Your task to perform on an android device: Play the last video I watched on Youtube Image 0: 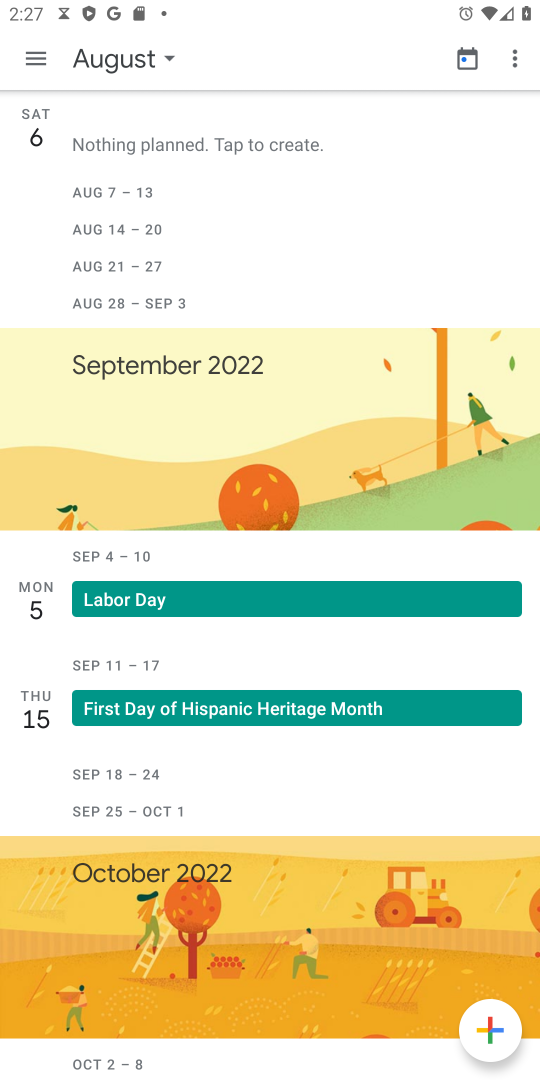
Step 0: press home button
Your task to perform on an android device: Play the last video I watched on Youtube Image 1: 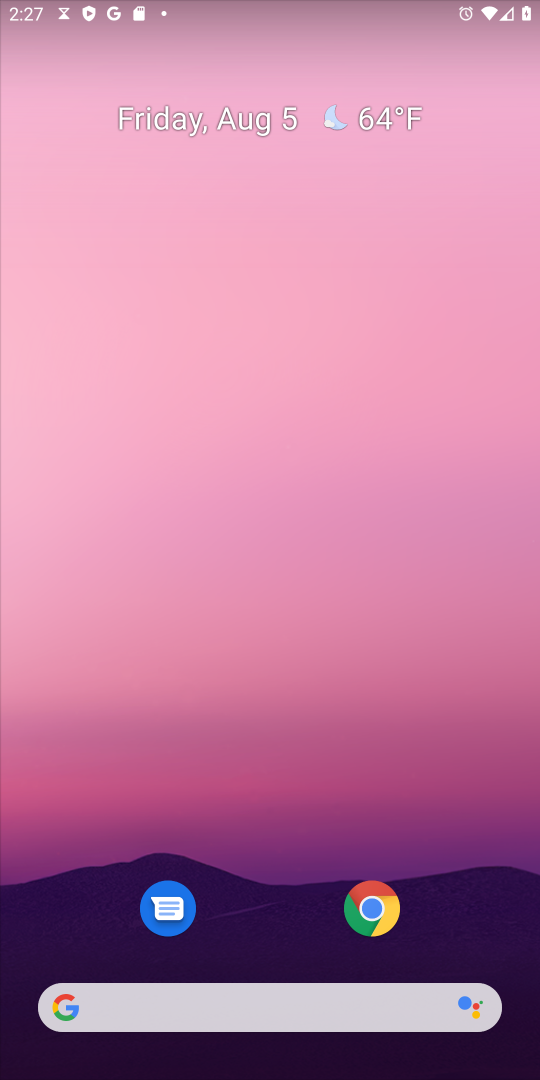
Step 1: drag from (300, 918) to (161, 92)
Your task to perform on an android device: Play the last video I watched on Youtube Image 2: 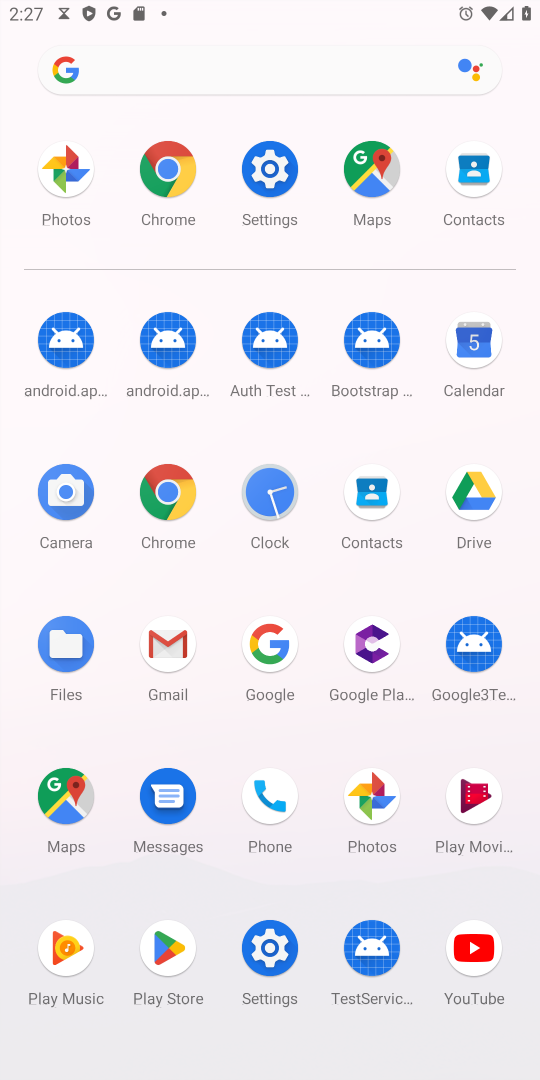
Step 2: click (480, 953)
Your task to perform on an android device: Play the last video I watched on Youtube Image 3: 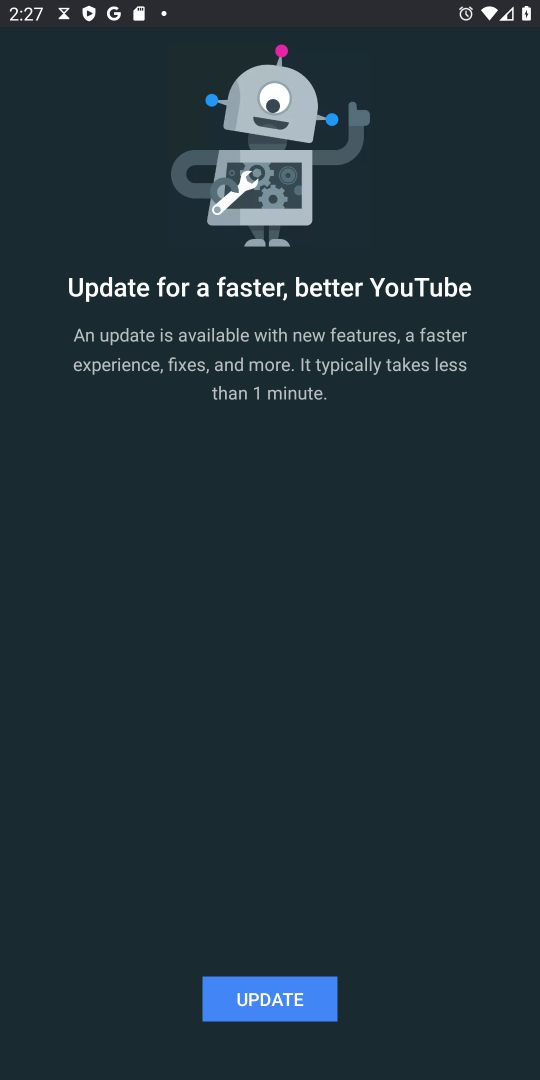
Step 3: click (294, 991)
Your task to perform on an android device: Play the last video I watched on Youtube Image 4: 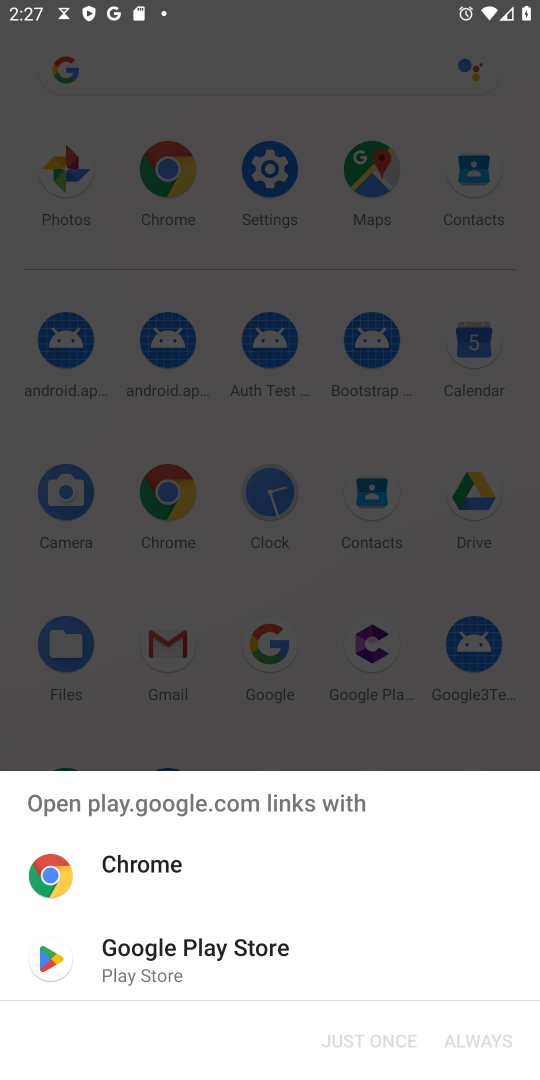
Step 4: click (214, 967)
Your task to perform on an android device: Play the last video I watched on Youtube Image 5: 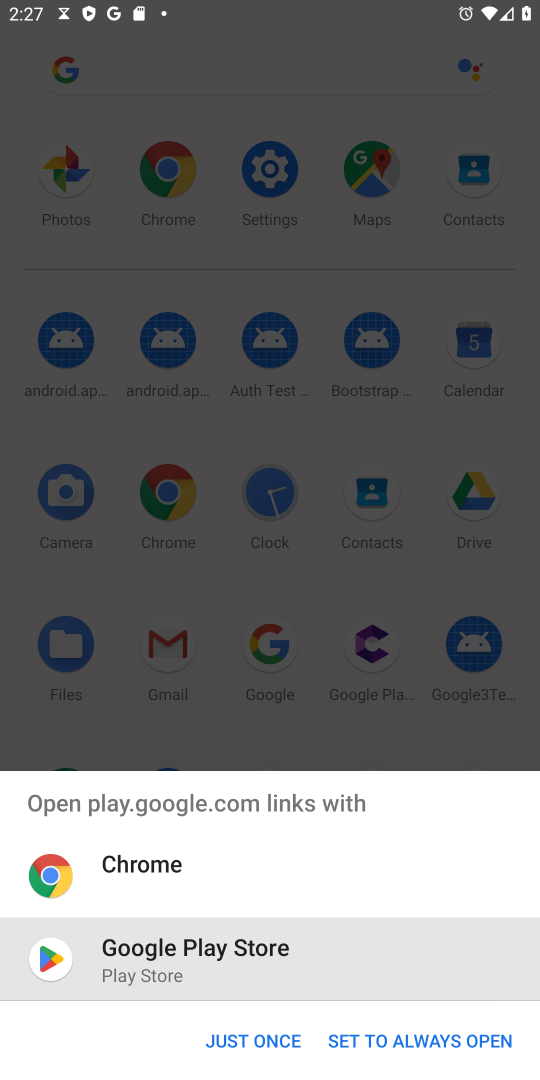
Step 5: click (244, 1050)
Your task to perform on an android device: Play the last video I watched on Youtube Image 6: 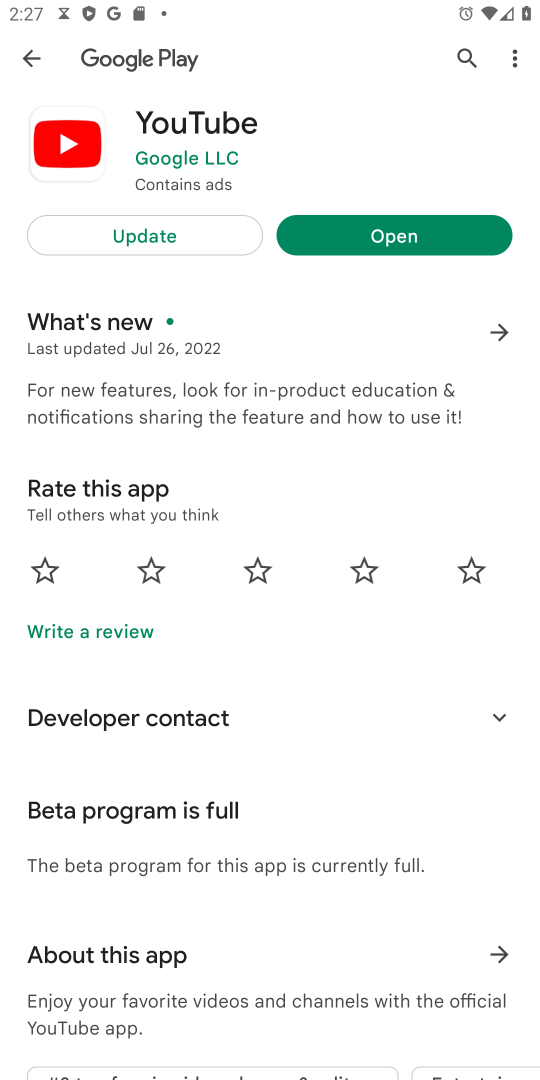
Step 6: click (150, 222)
Your task to perform on an android device: Play the last video I watched on Youtube Image 7: 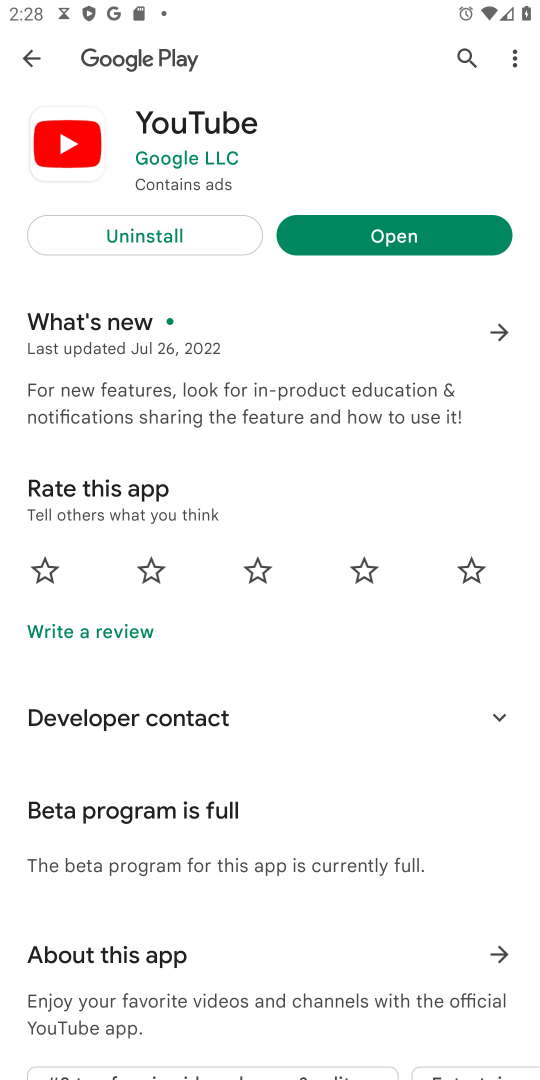
Step 7: click (352, 232)
Your task to perform on an android device: Play the last video I watched on Youtube Image 8: 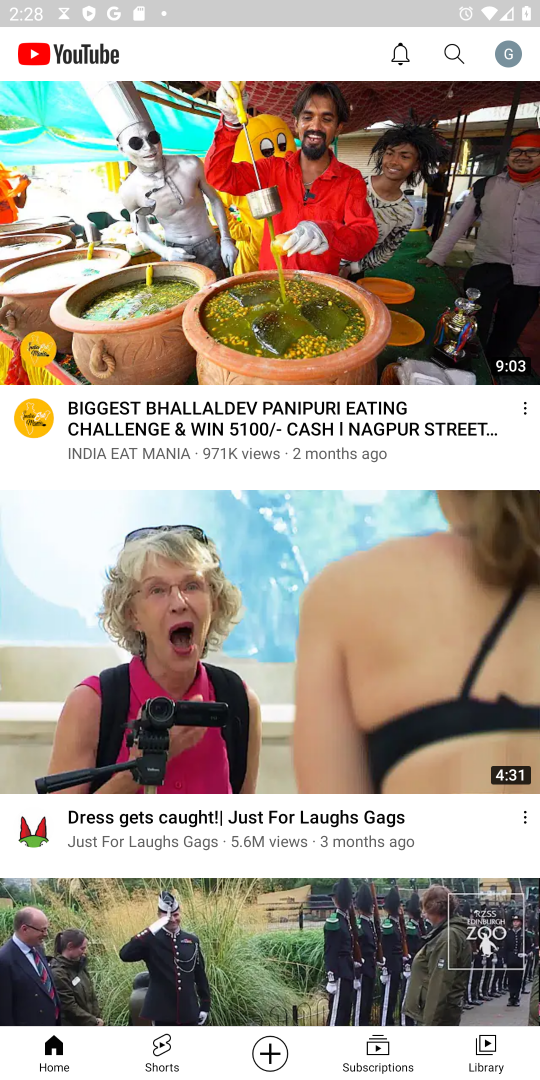
Step 8: click (492, 1057)
Your task to perform on an android device: Play the last video I watched on Youtube Image 9: 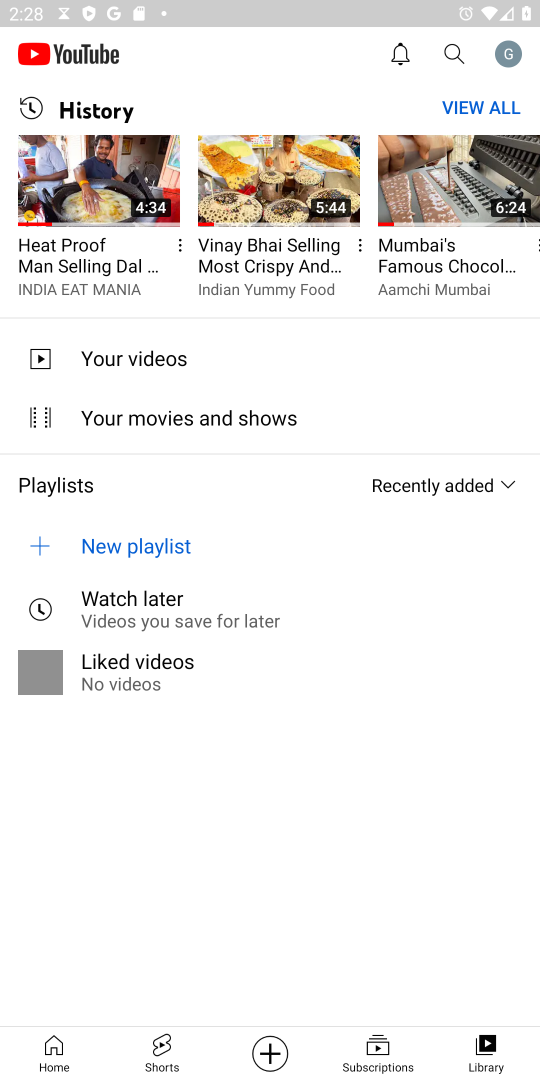
Step 9: click (96, 192)
Your task to perform on an android device: Play the last video I watched on Youtube Image 10: 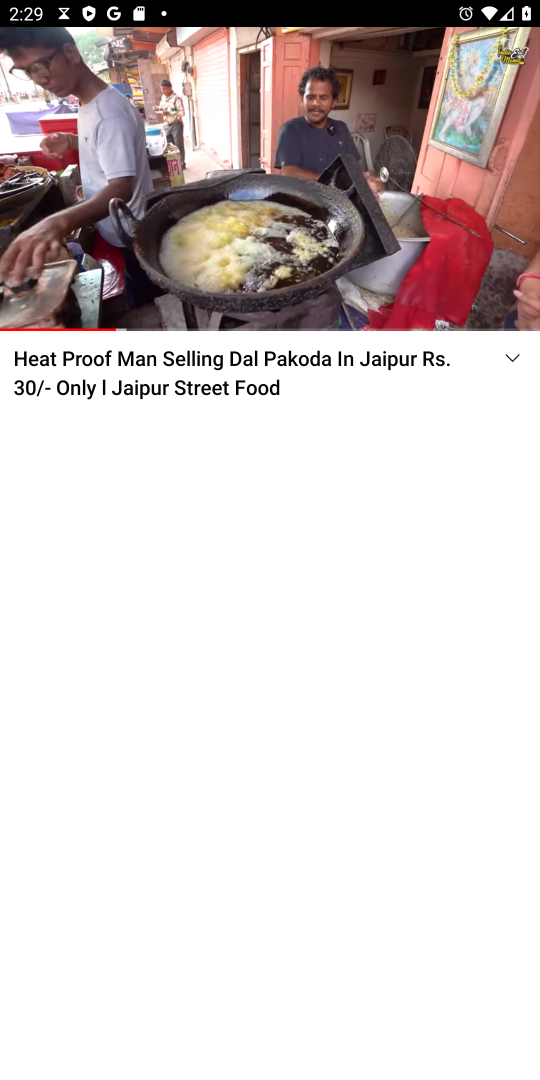
Step 10: task complete